Your task to perform on an android device: What is the news today? Image 0: 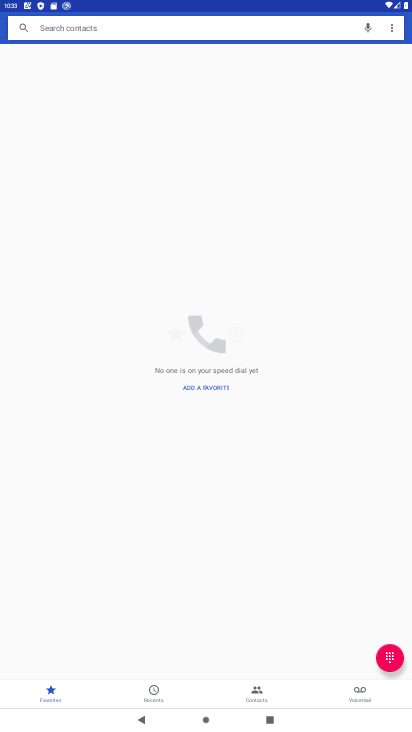
Step 0: press home button
Your task to perform on an android device: What is the news today? Image 1: 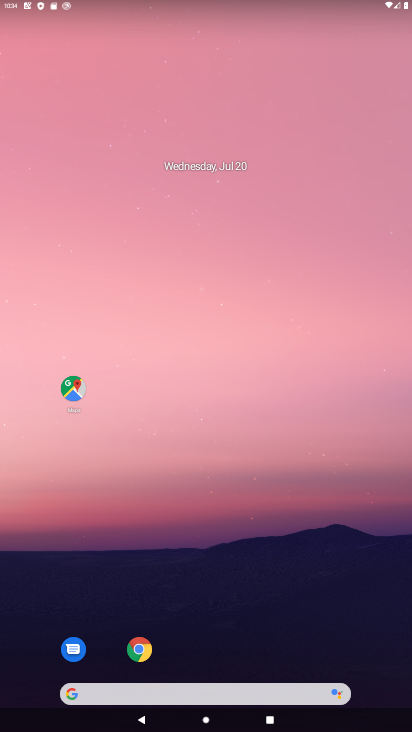
Step 1: drag from (261, 663) to (162, 93)
Your task to perform on an android device: What is the news today? Image 2: 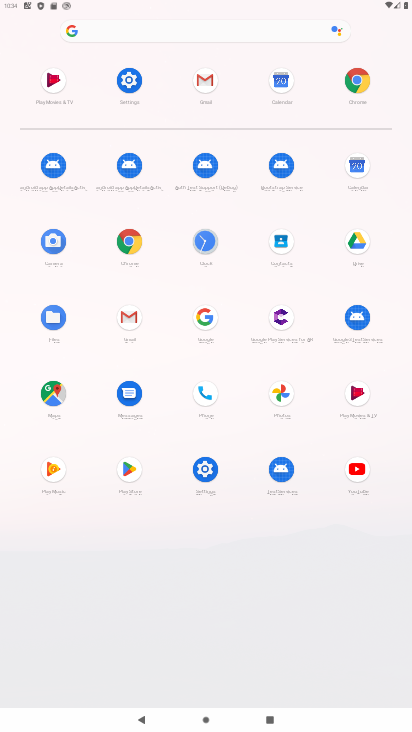
Step 2: click (144, 29)
Your task to perform on an android device: What is the news today? Image 3: 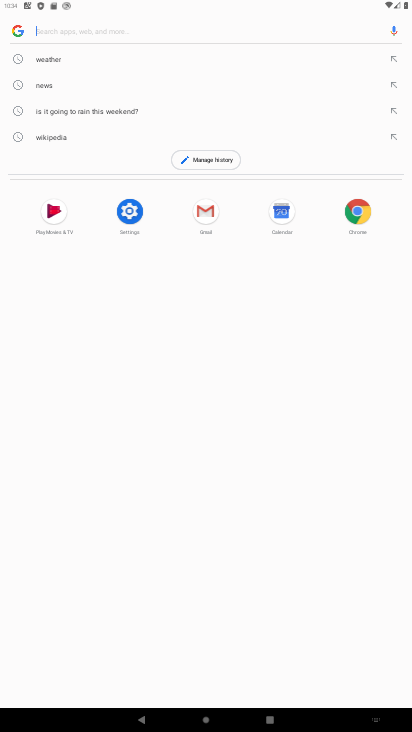
Step 3: click (98, 82)
Your task to perform on an android device: What is the news today? Image 4: 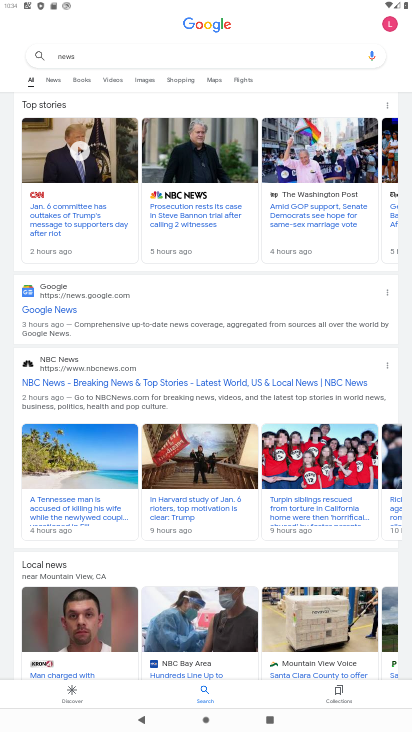
Step 4: task complete